Your task to perform on an android device: What is the capital of China? Image 0: 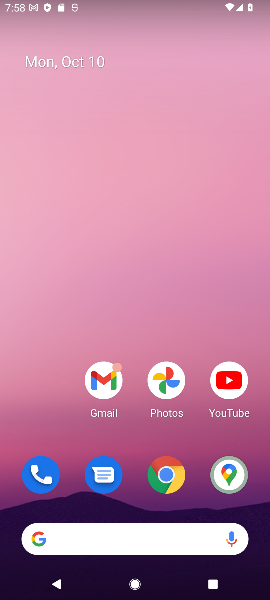
Step 0: click (174, 475)
Your task to perform on an android device: What is the capital of China? Image 1: 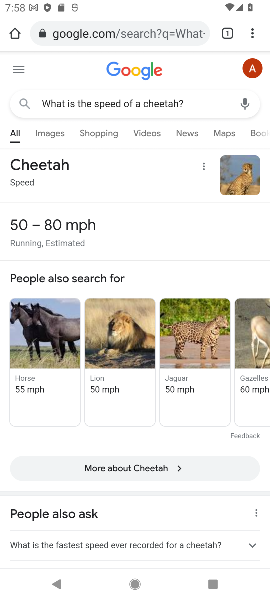
Step 1: click (148, 32)
Your task to perform on an android device: What is the capital of China? Image 2: 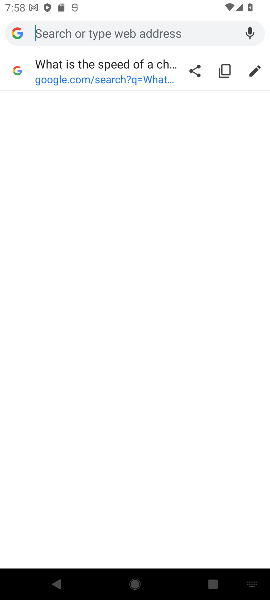
Step 2: type "capital of china"
Your task to perform on an android device: What is the capital of China? Image 3: 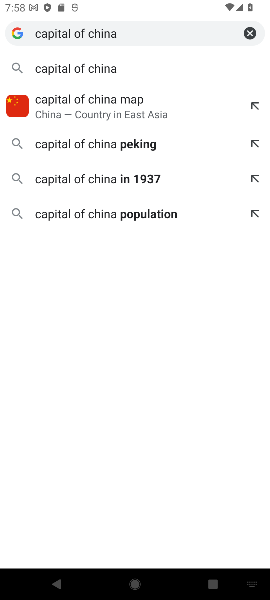
Step 3: click (83, 67)
Your task to perform on an android device: What is the capital of China? Image 4: 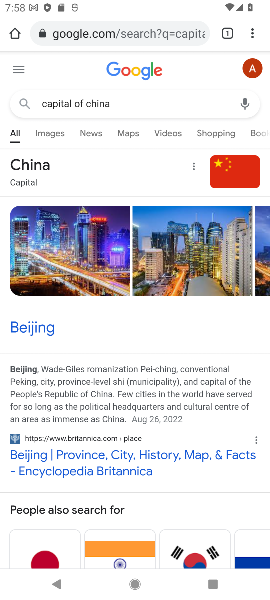
Step 4: task complete